Your task to perform on an android device: stop showing notifications on the lock screen Image 0: 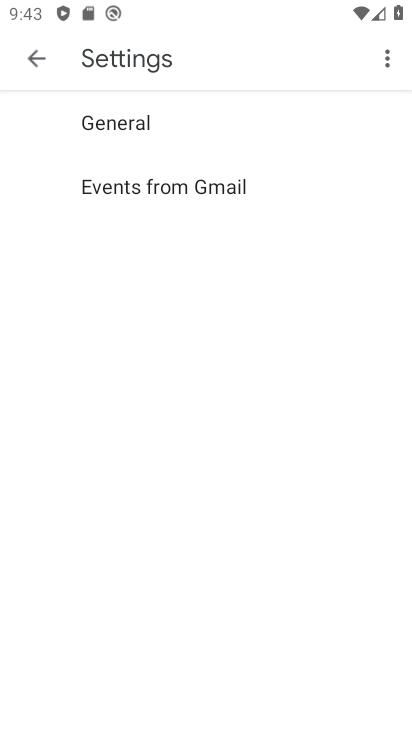
Step 0: press home button
Your task to perform on an android device: stop showing notifications on the lock screen Image 1: 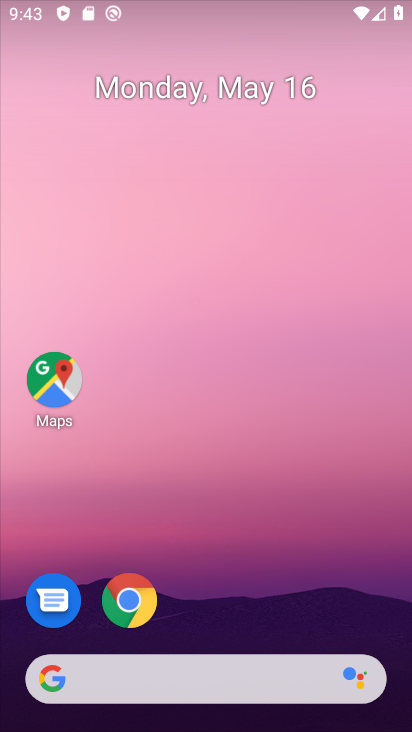
Step 1: drag from (365, 628) to (329, 216)
Your task to perform on an android device: stop showing notifications on the lock screen Image 2: 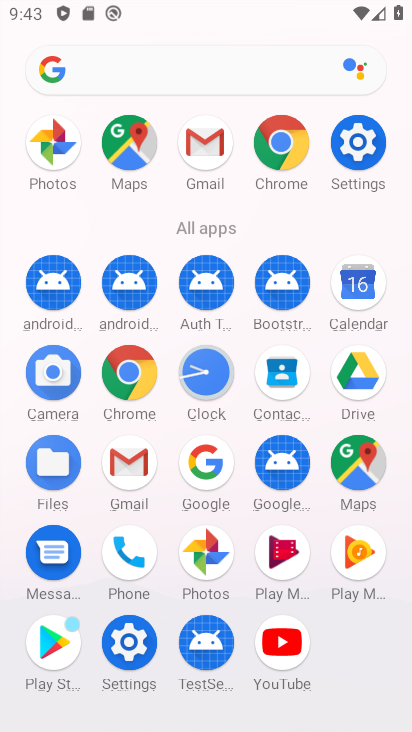
Step 2: click (113, 641)
Your task to perform on an android device: stop showing notifications on the lock screen Image 3: 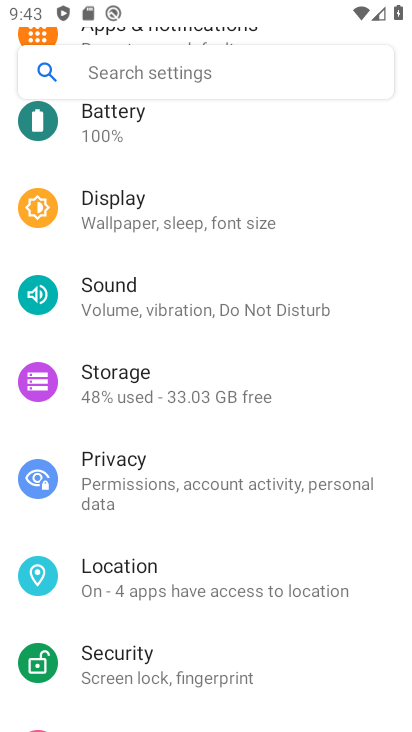
Step 3: drag from (206, 176) to (238, 543)
Your task to perform on an android device: stop showing notifications on the lock screen Image 4: 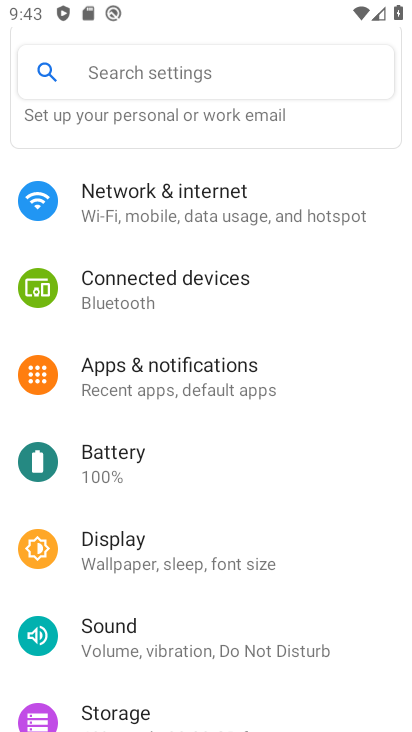
Step 4: click (207, 373)
Your task to perform on an android device: stop showing notifications on the lock screen Image 5: 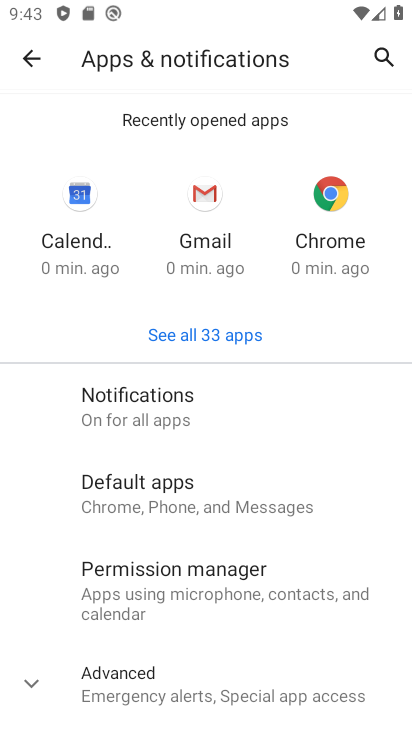
Step 5: drag from (234, 648) to (239, 338)
Your task to perform on an android device: stop showing notifications on the lock screen Image 6: 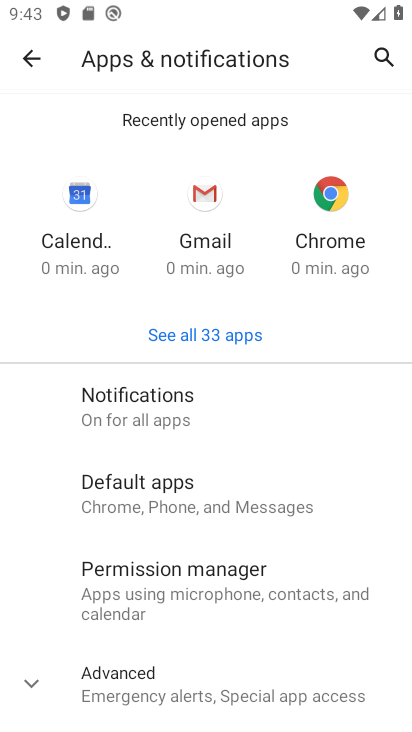
Step 6: click (181, 415)
Your task to perform on an android device: stop showing notifications on the lock screen Image 7: 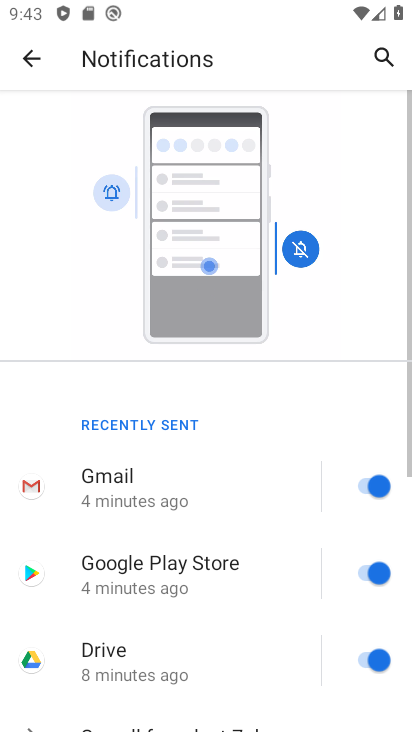
Step 7: drag from (165, 683) to (279, 219)
Your task to perform on an android device: stop showing notifications on the lock screen Image 8: 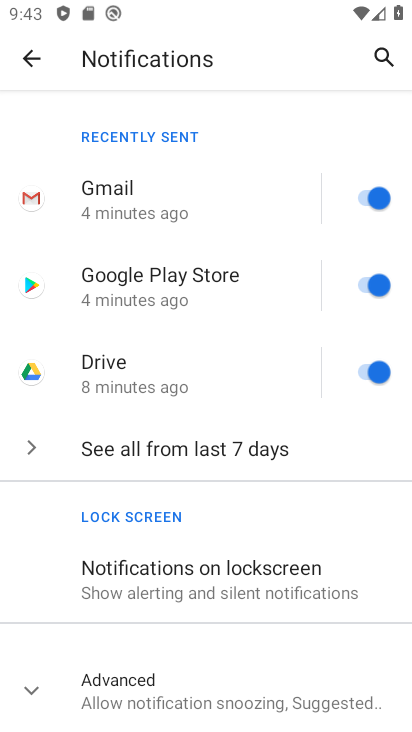
Step 8: click (229, 591)
Your task to perform on an android device: stop showing notifications on the lock screen Image 9: 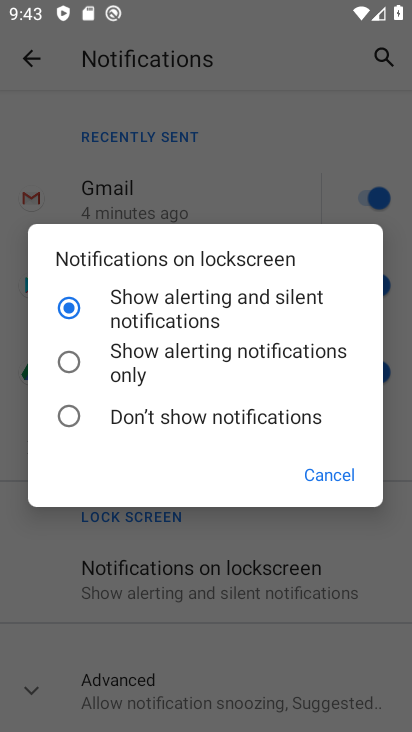
Step 9: click (105, 421)
Your task to perform on an android device: stop showing notifications on the lock screen Image 10: 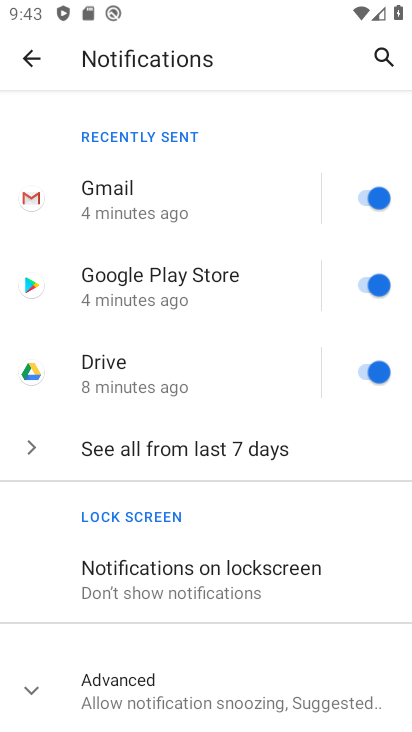
Step 10: task complete